Your task to perform on an android device: open wifi settings Image 0: 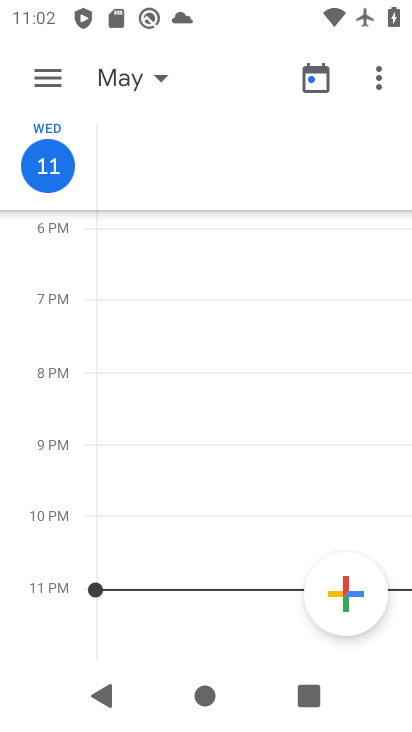
Step 0: press back button
Your task to perform on an android device: open wifi settings Image 1: 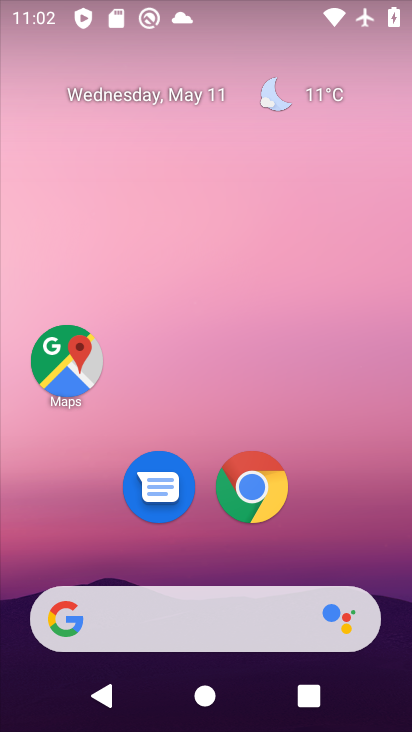
Step 1: drag from (336, 548) to (336, 18)
Your task to perform on an android device: open wifi settings Image 2: 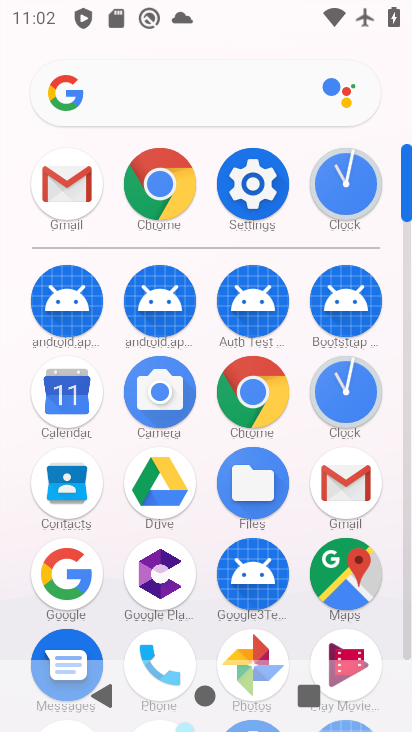
Step 2: drag from (11, 594) to (30, 353)
Your task to perform on an android device: open wifi settings Image 3: 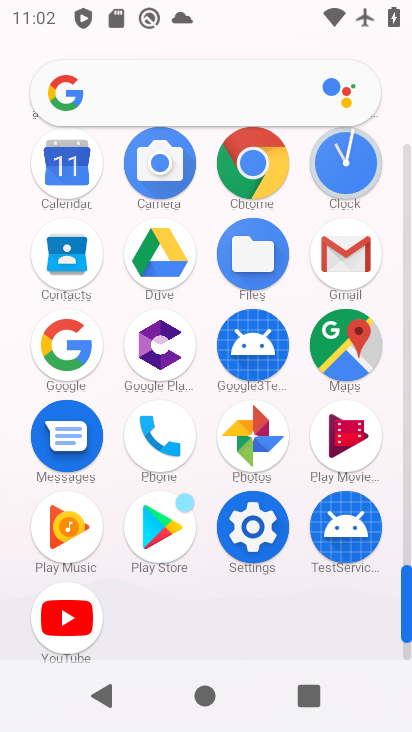
Step 3: click (253, 520)
Your task to perform on an android device: open wifi settings Image 4: 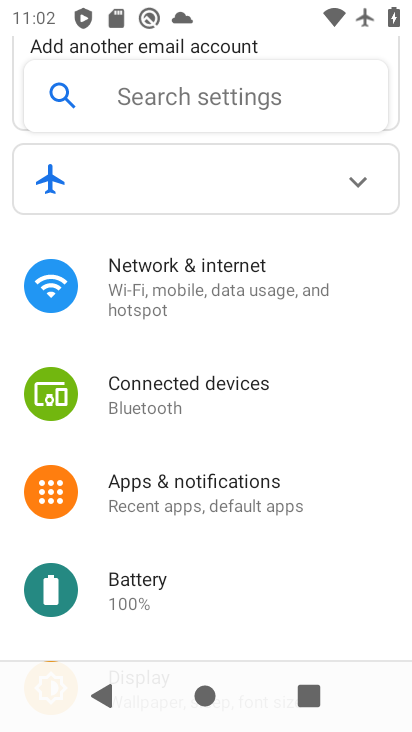
Step 4: drag from (232, 292) to (248, 411)
Your task to perform on an android device: open wifi settings Image 5: 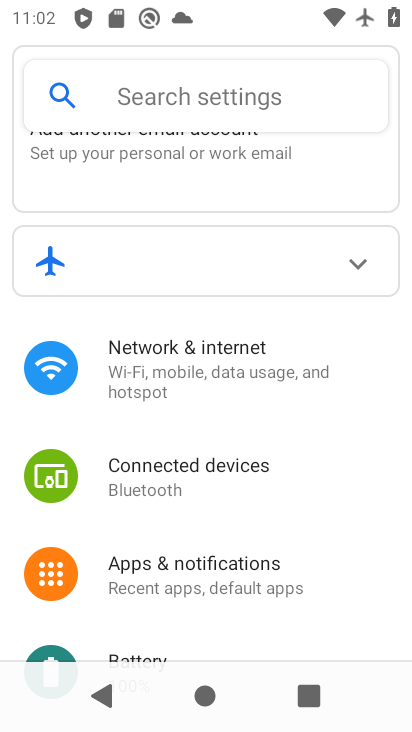
Step 5: click (212, 392)
Your task to perform on an android device: open wifi settings Image 6: 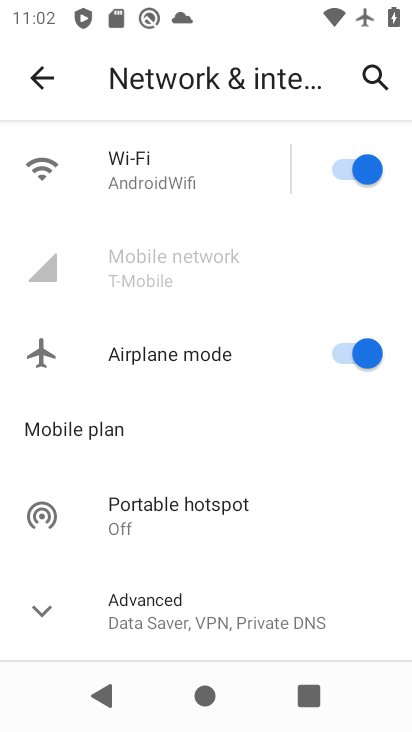
Step 6: click (177, 178)
Your task to perform on an android device: open wifi settings Image 7: 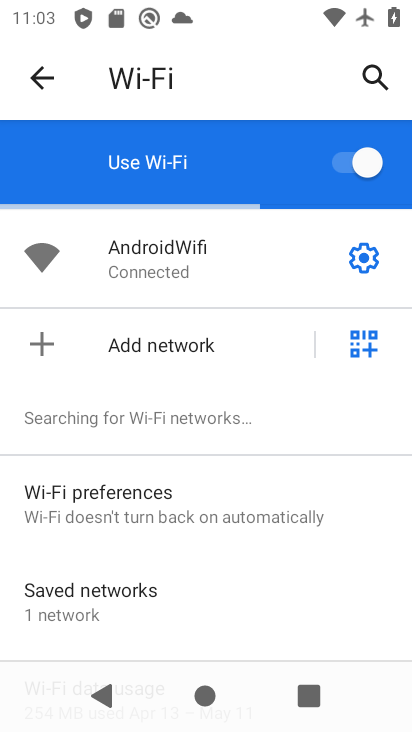
Step 7: task complete